Your task to perform on an android device: Go to notification settings Image 0: 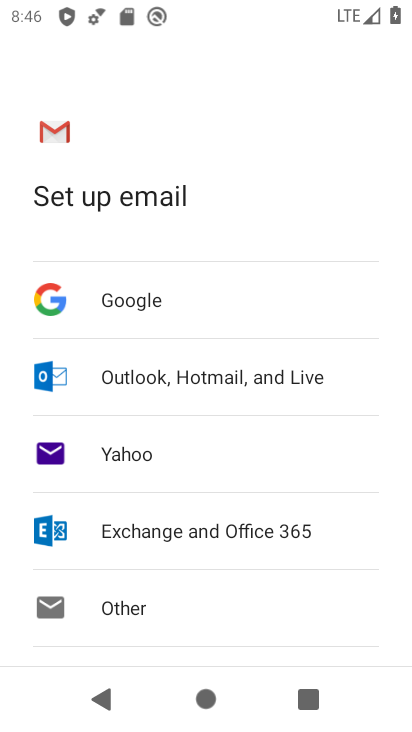
Step 0: press home button
Your task to perform on an android device: Go to notification settings Image 1: 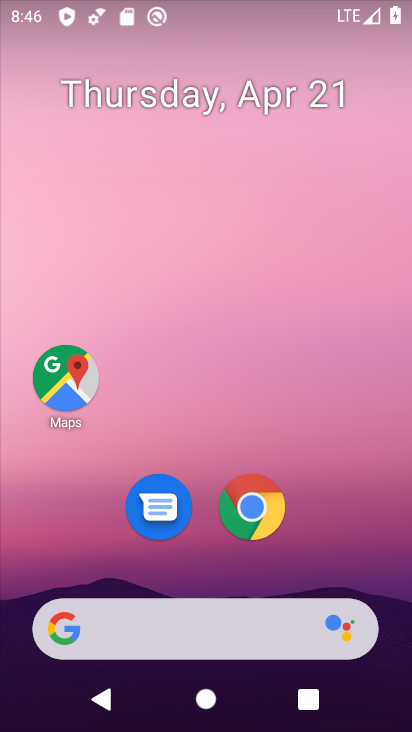
Step 1: drag from (364, 547) to (371, 71)
Your task to perform on an android device: Go to notification settings Image 2: 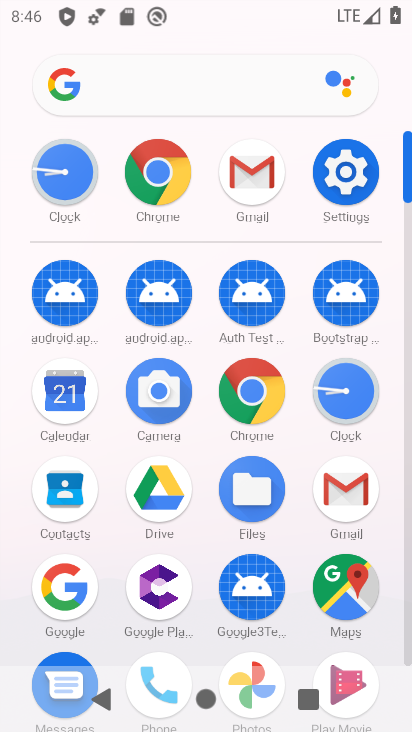
Step 2: click (356, 183)
Your task to perform on an android device: Go to notification settings Image 3: 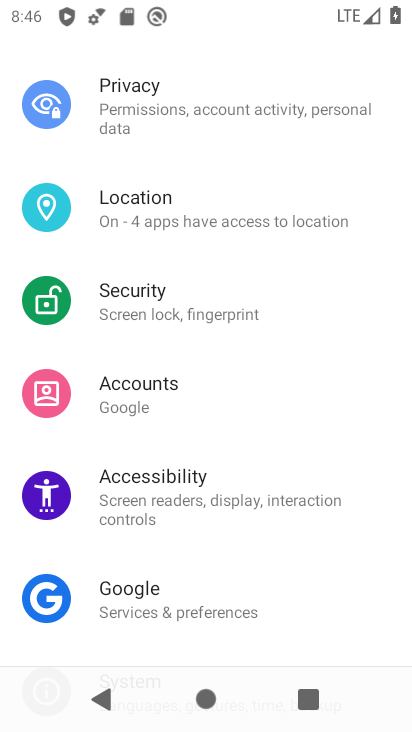
Step 3: drag from (348, 268) to (352, 498)
Your task to perform on an android device: Go to notification settings Image 4: 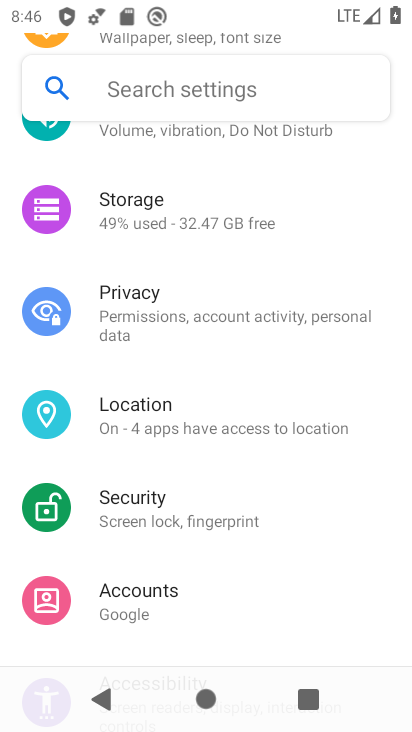
Step 4: drag from (335, 242) to (311, 538)
Your task to perform on an android device: Go to notification settings Image 5: 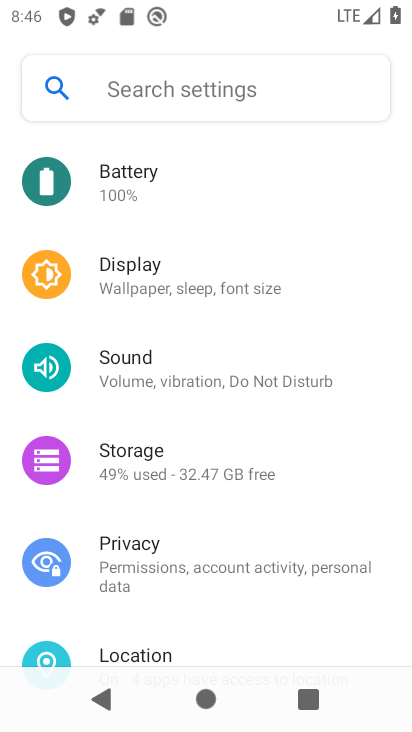
Step 5: drag from (295, 244) to (296, 522)
Your task to perform on an android device: Go to notification settings Image 6: 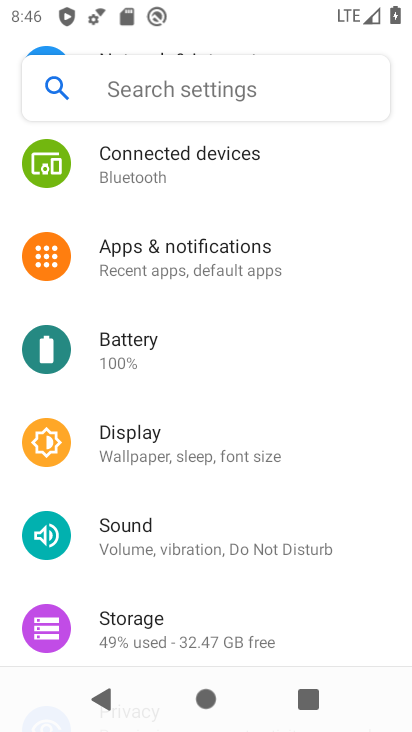
Step 6: click (251, 270)
Your task to perform on an android device: Go to notification settings Image 7: 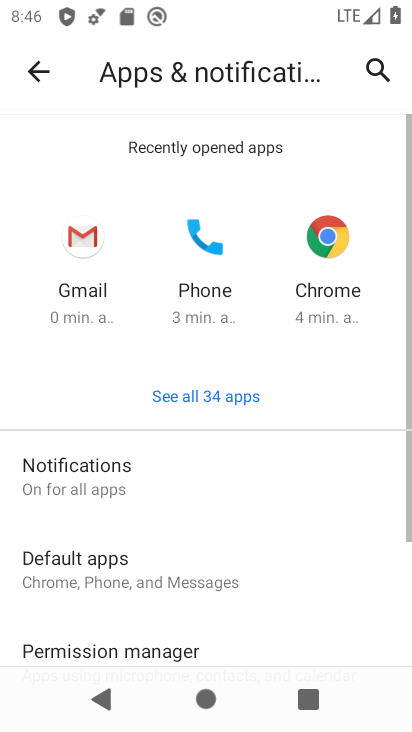
Step 7: click (95, 497)
Your task to perform on an android device: Go to notification settings Image 8: 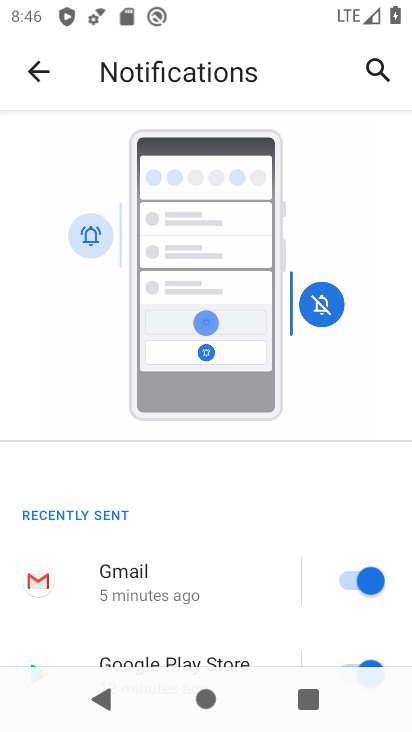
Step 8: drag from (70, 607) to (70, 273)
Your task to perform on an android device: Go to notification settings Image 9: 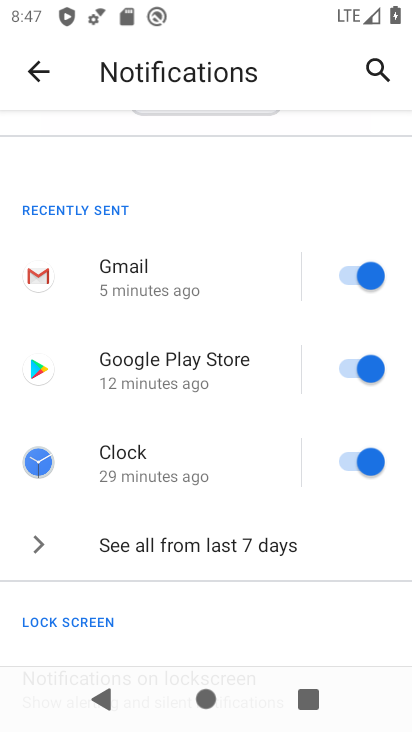
Step 9: drag from (70, 605) to (56, 289)
Your task to perform on an android device: Go to notification settings Image 10: 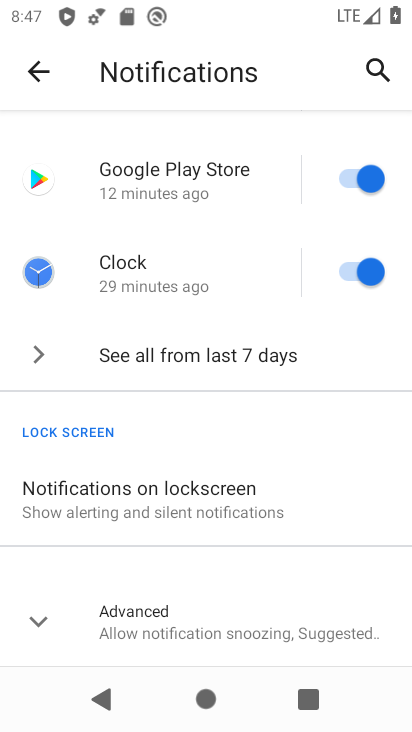
Step 10: drag from (225, 565) to (209, 306)
Your task to perform on an android device: Go to notification settings Image 11: 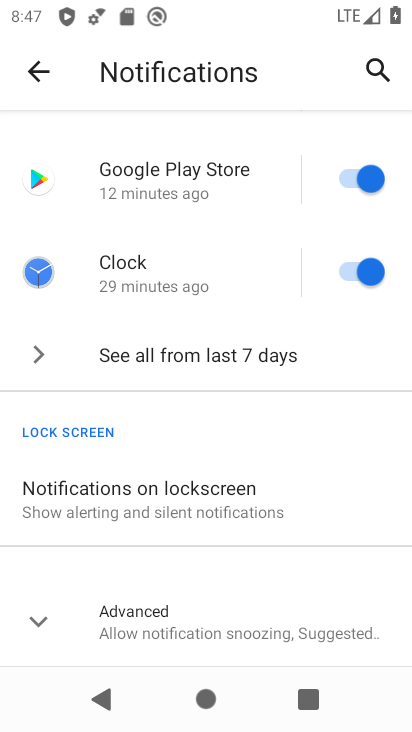
Step 11: click (47, 631)
Your task to perform on an android device: Go to notification settings Image 12: 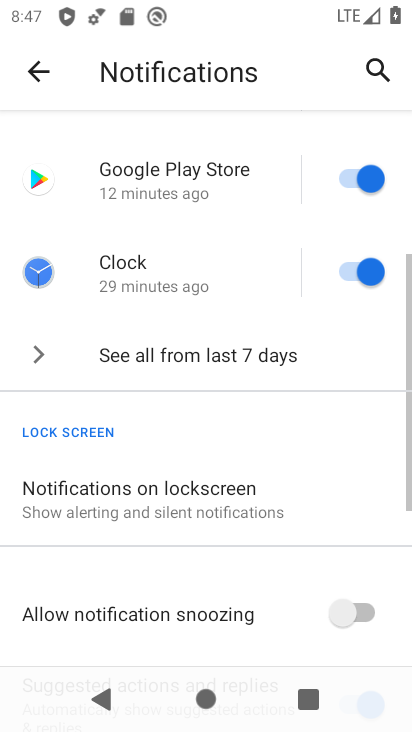
Step 12: task complete